Your task to perform on an android device: Clear all items from cart on newegg. Search for bose soundlink mini on newegg, select the first entry, and add it to the cart. Image 0: 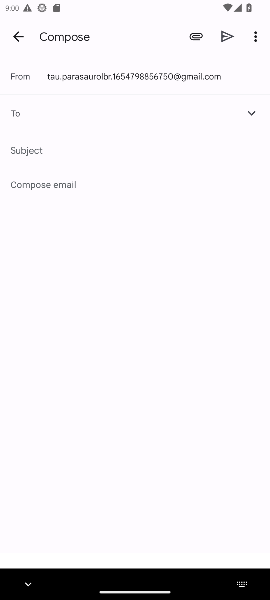
Step 0: press home button
Your task to perform on an android device: Clear all items from cart on newegg. Search for bose soundlink mini on newegg, select the first entry, and add it to the cart. Image 1: 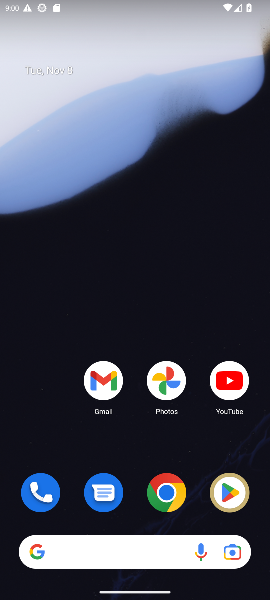
Step 1: click (163, 491)
Your task to perform on an android device: Clear all items from cart on newegg. Search for bose soundlink mini on newegg, select the first entry, and add it to the cart. Image 2: 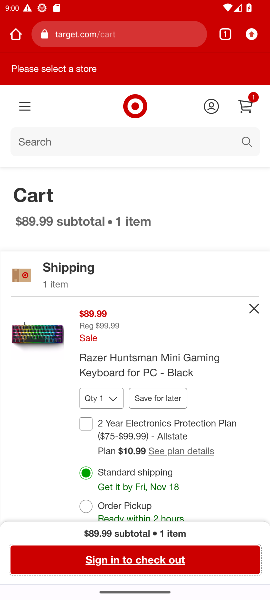
Step 2: click (152, 35)
Your task to perform on an android device: Clear all items from cart on newegg. Search for bose soundlink mini on newegg, select the first entry, and add it to the cart. Image 3: 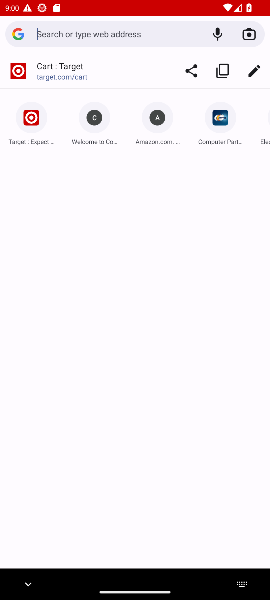
Step 3: type "newegg"
Your task to perform on an android device: Clear all items from cart on newegg. Search for bose soundlink mini on newegg, select the first entry, and add it to the cart. Image 4: 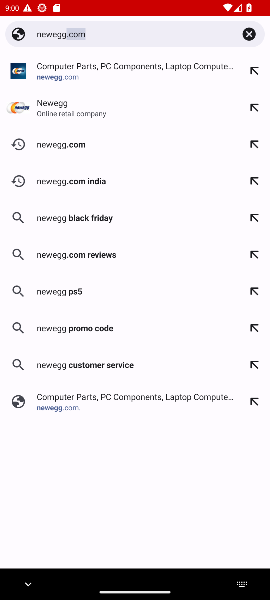
Step 4: click (214, 34)
Your task to perform on an android device: Clear all items from cart on newegg. Search for bose soundlink mini on newegg, select the first entry, and add it to the cart. Image 5: 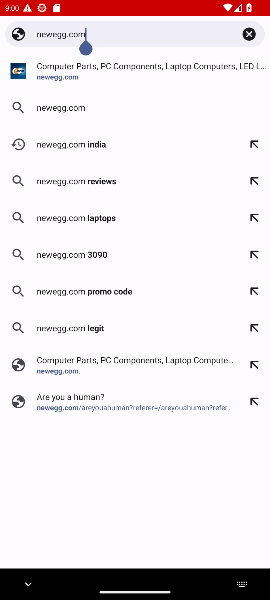
Step 5: click (67, 103)
Your task to perform on an android device: Clear all items from cart on newegg. Search for bose soundlink mini on newegg, select the first entry, and add it to the cart. Image 6: 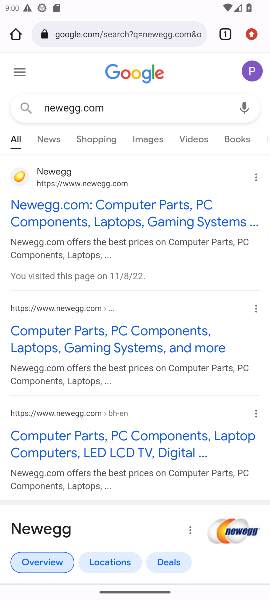
Step 6: click (64, 180)
Your task to perform on an android device: Clear all items from cart on newegg. Search for bose soundlink mini on newegg, select the first entry, and add it to the cart. Image 7: 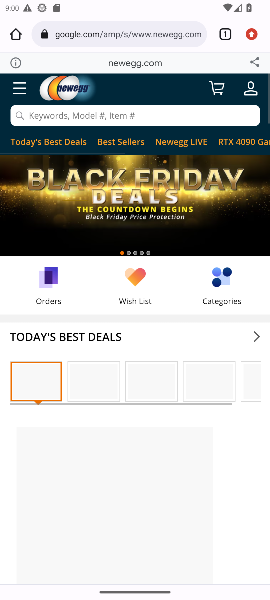
Step 7: click (220, 86)
Your task to perform on an android device: Clear all items from cart on newegg. Search for bose soundlink mini on newegg, select the first entry, and add it to the cart. Image 8: 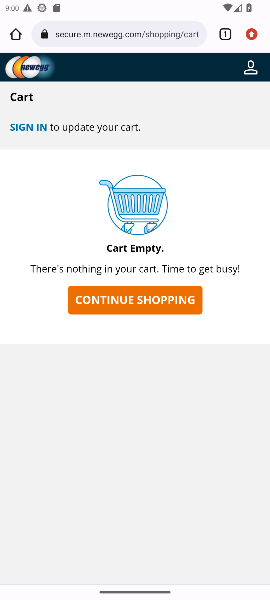
Step 8: press back button
Your task to perform on an android device: Clear all items from cart on newegg. Search for bose soundlink mini on newegg, select the first entry, and add it to the cart. Image 9: 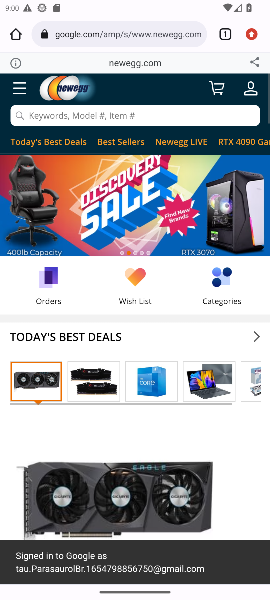
Step 9: drag from (269, 121) to (41, 288)
Your task to perform on an android device: Clear all items from cart on newegg. Search for bose soundlink mini on newegg, select the first entry, and add it to the cart. Image 10: 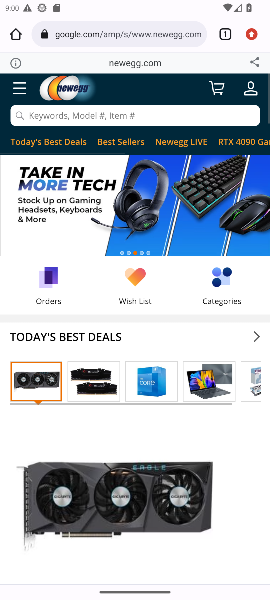
Step 10: click (189, 120)
Your task to perform on an android device: Clear all items from cart on newegg. Search for bose soundlink mini on newegg, select the first entry, and add it to the cart. Image 11: 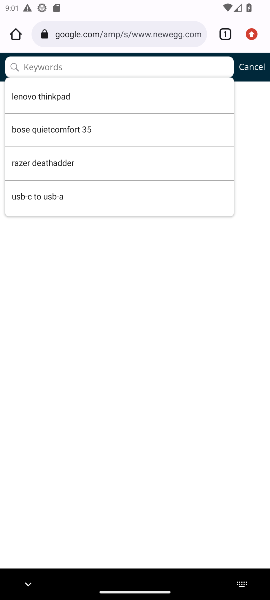
Step 11: click (158, 65)
Your task to perform on an android device: Clear all items from cart on newegg. Search for bose soundlink mini on newegg, select the first entry, and add it to the cart. Image 12: 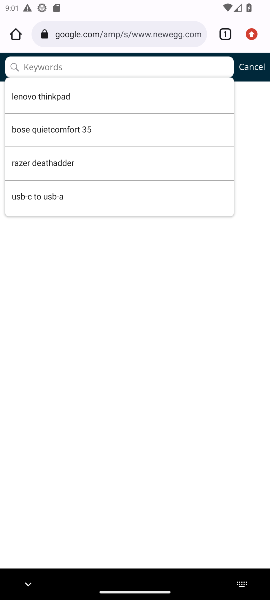
Step 12: type "bose soundlink mini"
Your task to perform on an android device: Clear all items from cart on newegg. Search for bose soundlink mini on newegg, select the first entry, and add it to the cart. Image 13: 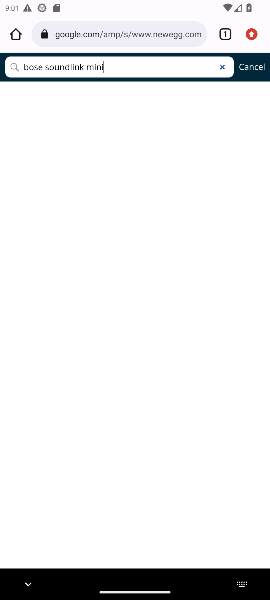
Step 13: click (133, 200)
Your task to perform on an android device: Clear all items from cart on newegg. Search for bose soundlink mini on newegg, select the first entry, and add it to the cart. Image 14: 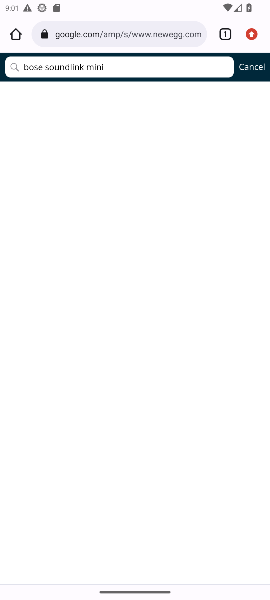
Step 14: click (133, 200)
Your task to perform on an android device: Clear all items from cart on newegg. Search for bose soundlink mini on newegg, select the first entry, and add it to the cart. Image 15: 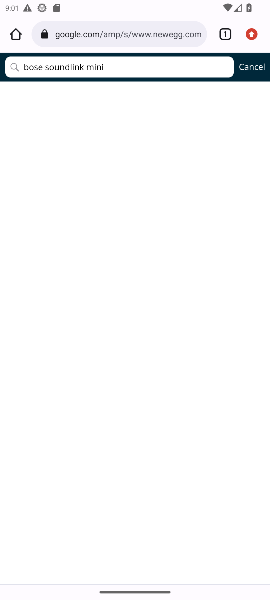
Step 15: task complete